Your task to perform on an android device: clear all cookies in the chrome app Image 0: 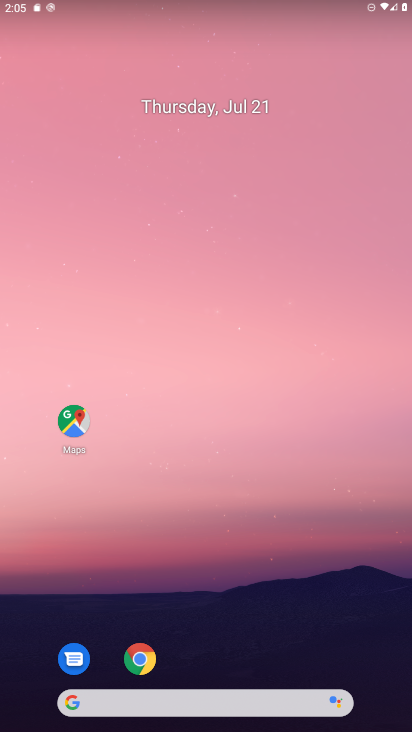
Step 0: press home button
Your task to perform on an android device: clear all cookies in the chrome app Image 1: 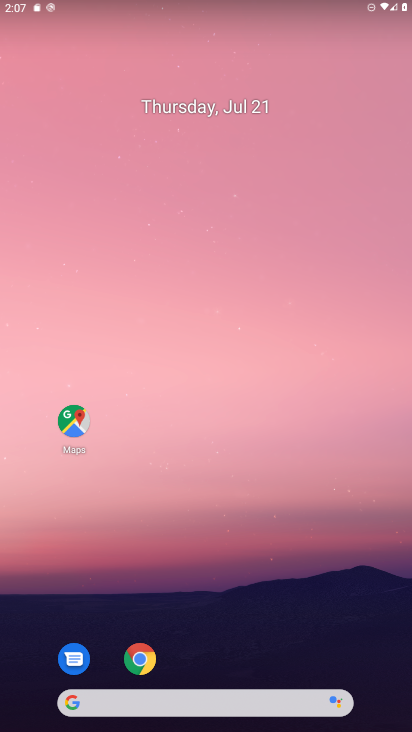
Step 1: click (135, 666)
Your task to perform on an android device: clear all cookies in the chrome app Image 2: 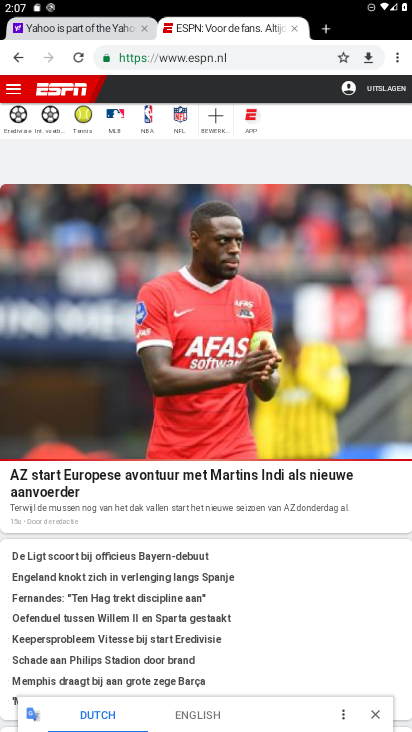
Step 2: click (401, 57)
Your task to perform on an android device: clear all cookies in the chrome app Image 3: 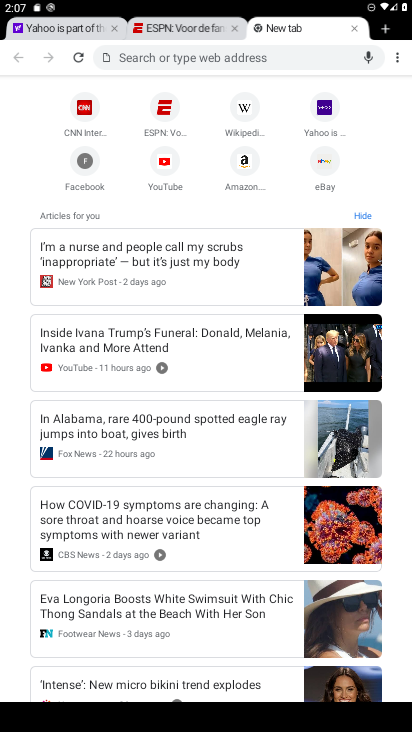
Step 3: click (358, 29)
Your task to perform on an android device: clear all cookies in the chrome app Image 4: 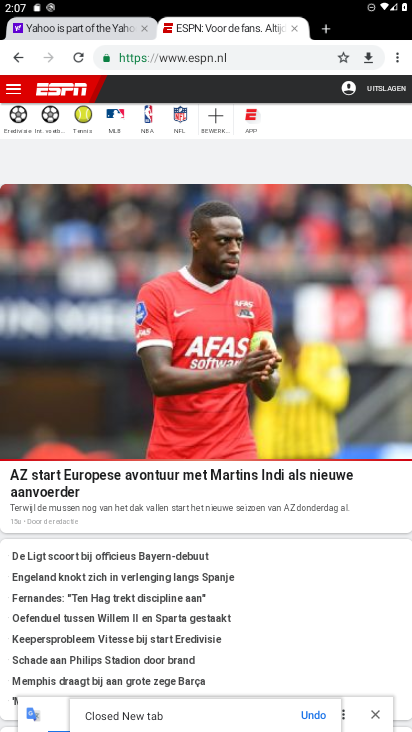
Step 4: click (299, 26)
Your task to perform on an android device: clear all cookies in the chrome app Image 5: 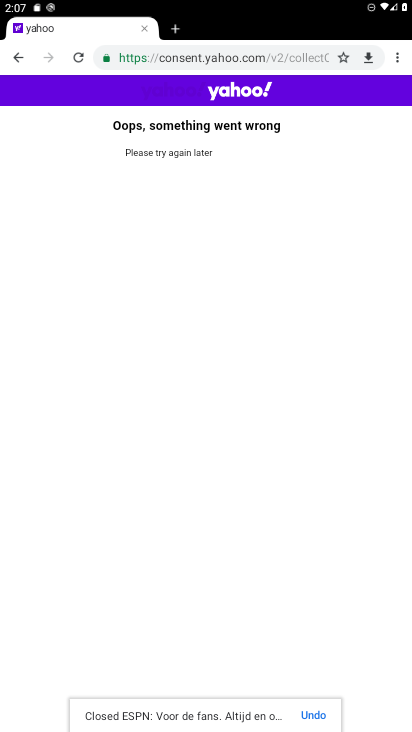
Step 5: click (395, 61)
Your task to perform on an android device: clear all cookies in the chrome app Image 6: 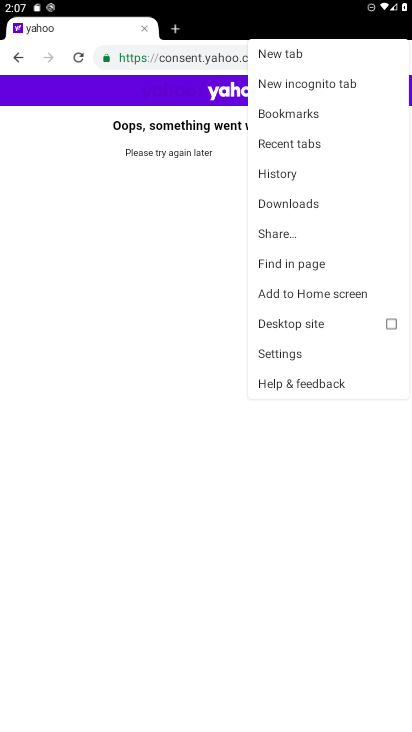
Step 6: click (279, 357)
Your task to perform on an android device: clear all cookies in the chrome app Image 7: 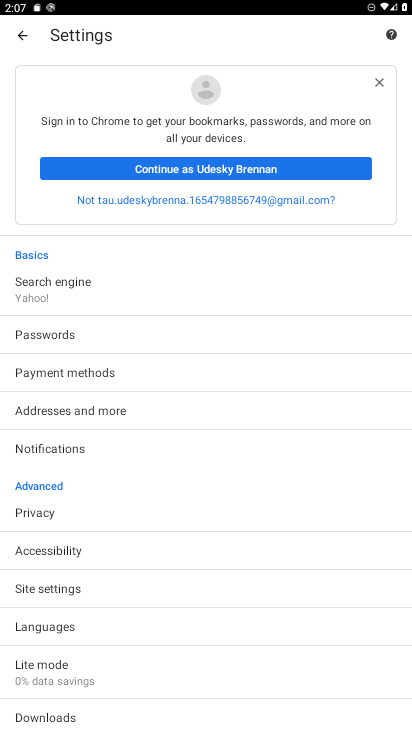
Step 7: click (30, 509)
Your task to perform on an android device: clear all cookies in the chrome app Image 8: 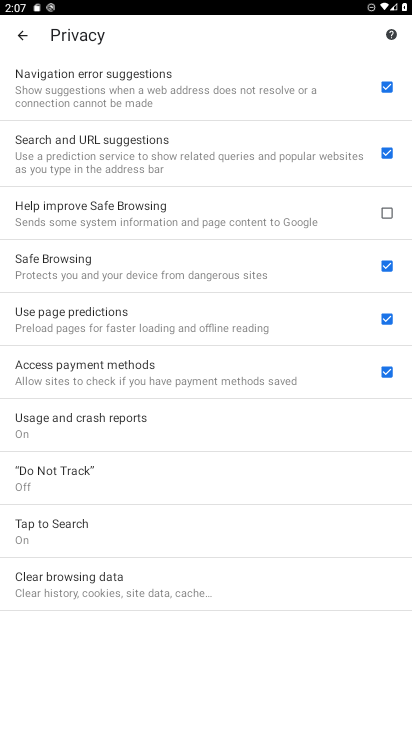
Step 8: click (125, 592)
Your task to perform on an android device: clear all cookies in the chrome app Image 9: 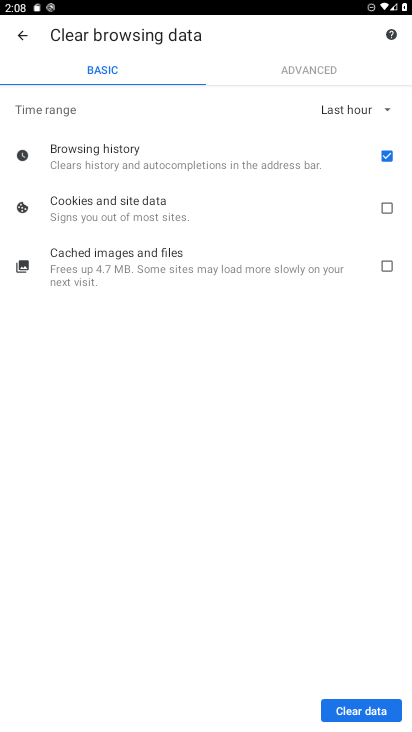
Step 9: click (390, 211)
Your task to perform on an android device: clear all cookies in the chrome app Image 10: 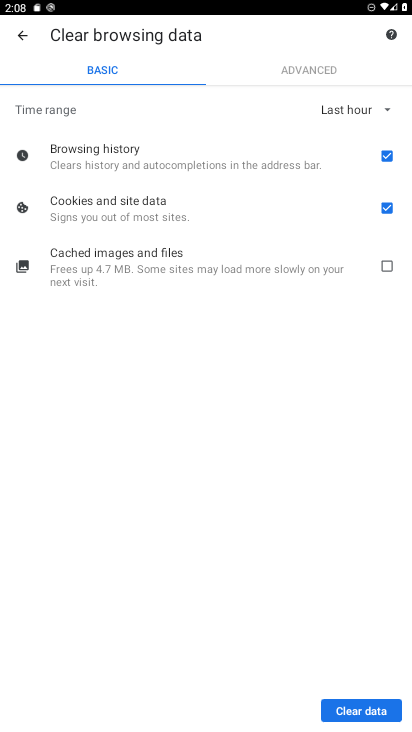
Step 10: click (392, 159)
Your task to perform on an android device: clear all cookies in the chrome app Image 11: 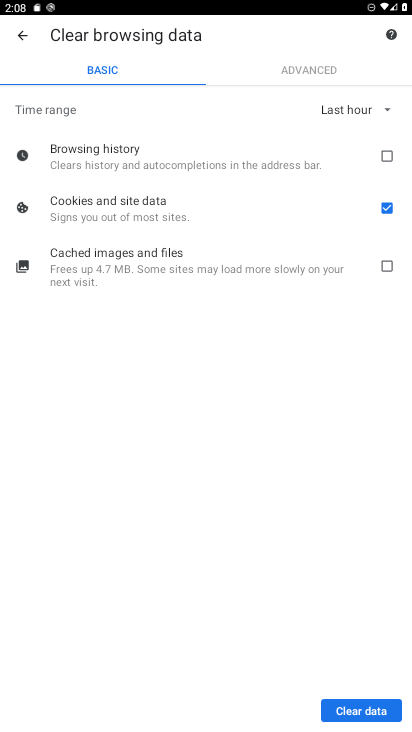
Step 11: click (366, 709)
Your task to perform on an android device: clear all cookies in the chrome app Image 12: 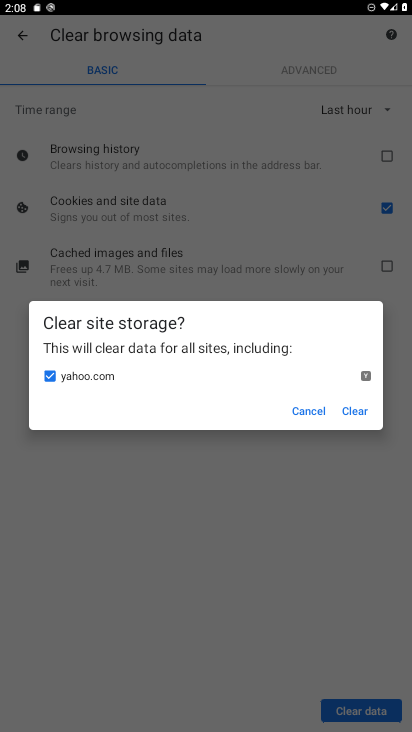
Step 12: click (364, 411)
Your task to perform on an android device: clear all cookies in the chrome app Image 13: 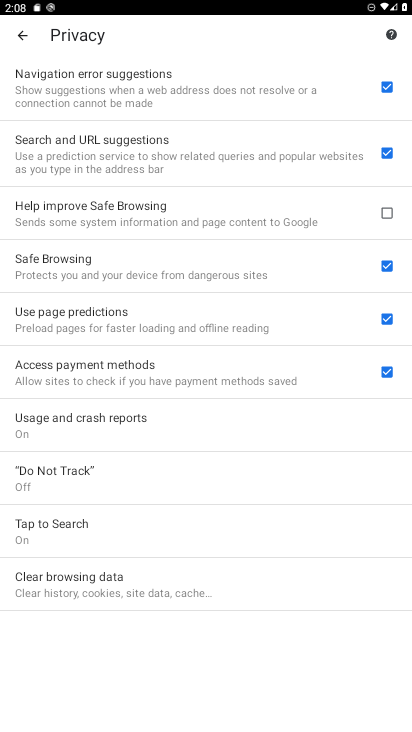
Step 13: task complete